Your task to perform on an android device: turn off location history Image 0: 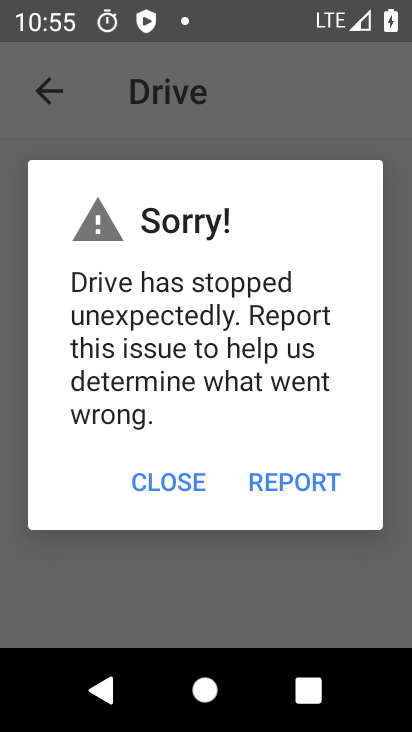
Step 0: press home button
Your task to perform on an android device: turn off location history Image 1: 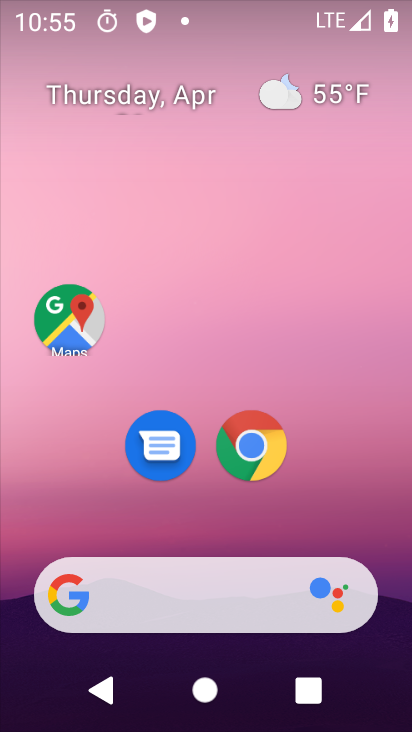
Step 1: click (84, 318)
Your task to perform on an android device: turn off location history Image 2: 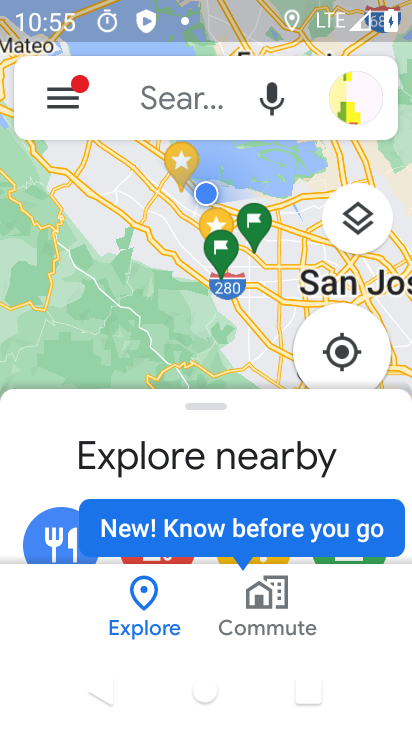
Step 2: click (73, 102)
Your task to perform on an android device: turn off location history Image 3: 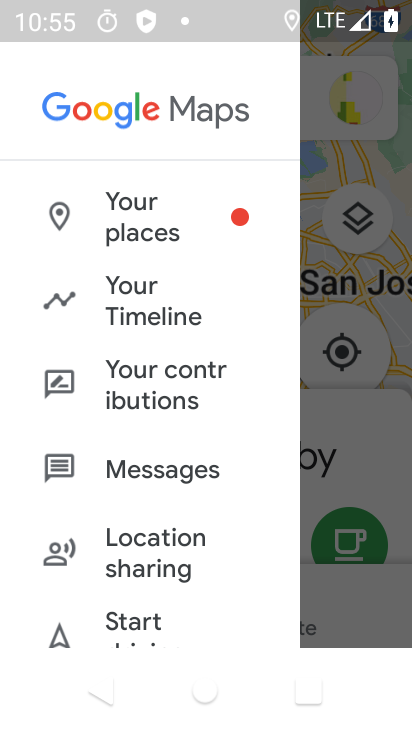
Step 3: click (132, 304)
Your task to perform on an android device: turn off location history Image 4: 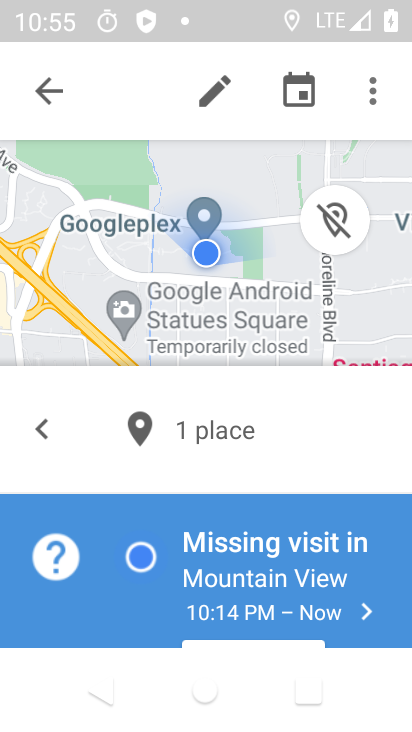
Step 4: click (369, 92)
Your task to perform on an android device: turn off location history Image 5: 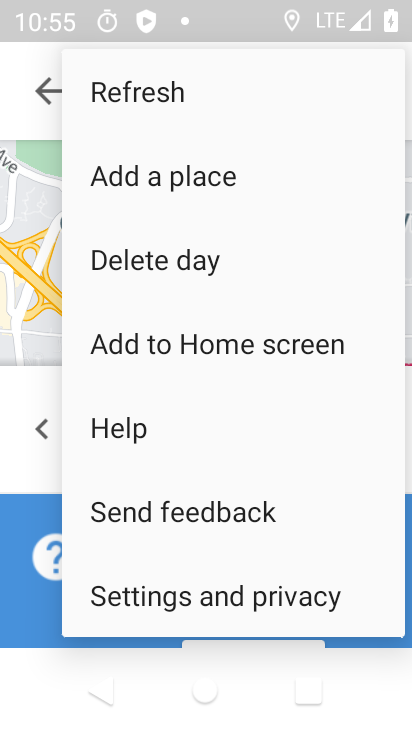
Step 5: click (216, 594)
Your task to perform on an android device: turn off location history Image 6: 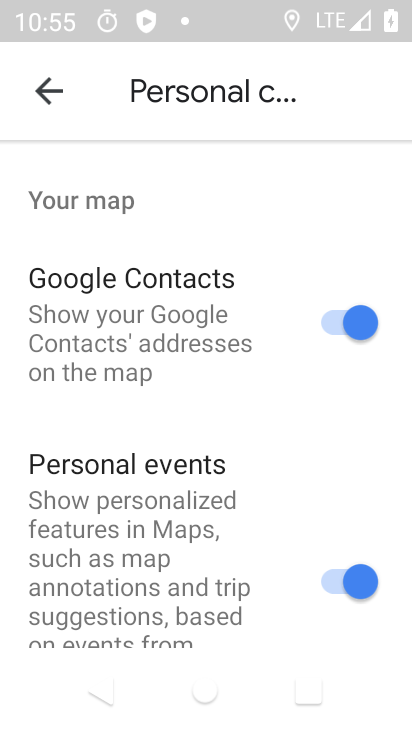
Step 6: drag from (198, 555) to (176, 105)
Your task to perform on an android device: turn off location history Image 7: 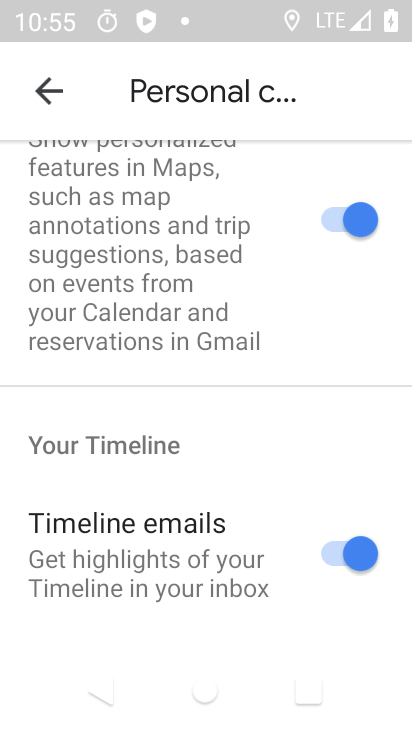
Step 7: drag from (203, 585) to (206, 79)
Your task to perform on an android device: turn off location history Image 8: 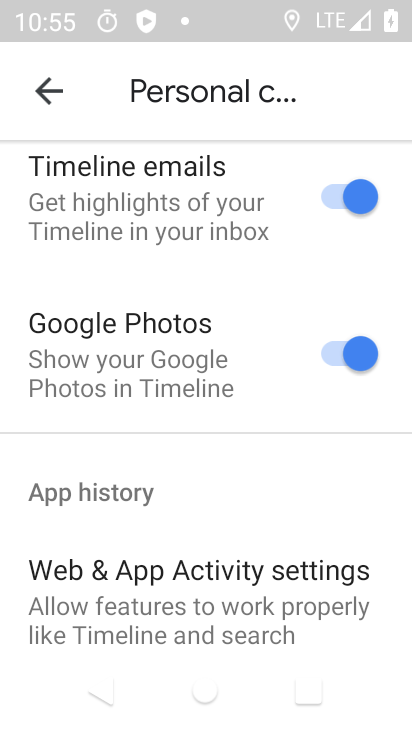
Step 8: drag from (203, 544) to (178, 95)
Your task to perform on an android device: turn off location history Image 9: 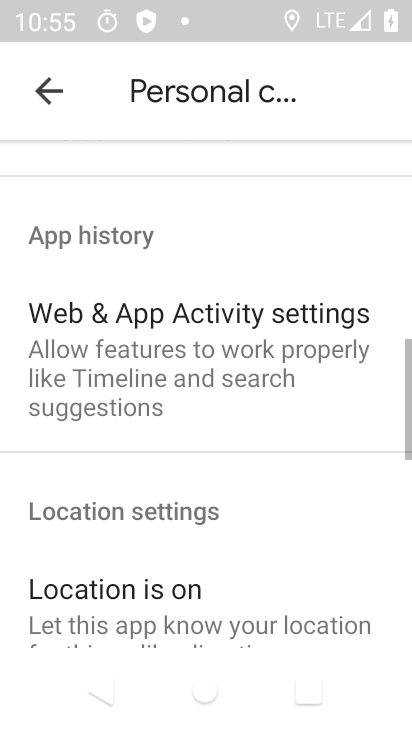
Step 9: drag from (171, 519) to (148, 149)
Your task to perform on an android device: turn off location history Image 10: 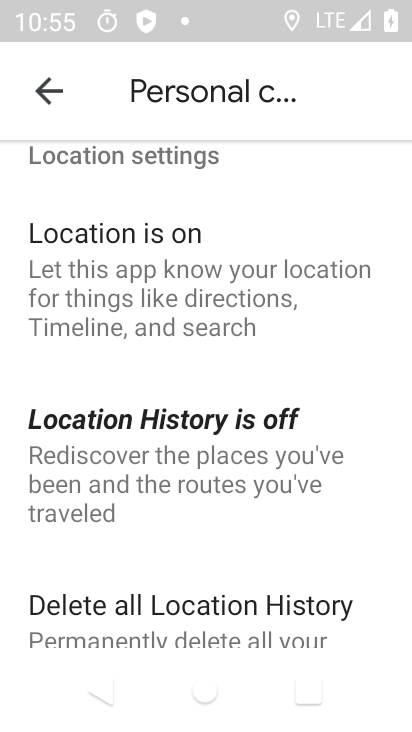
Step 10: click (128, 453)
Your task to perform on an android device: turn off location history Image 11: 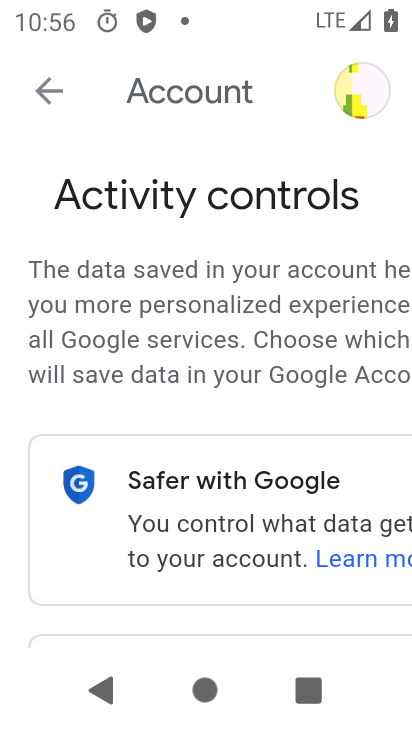
Step 11: task complete